Your task to perform on an android device: Open privacy settings Image 0: 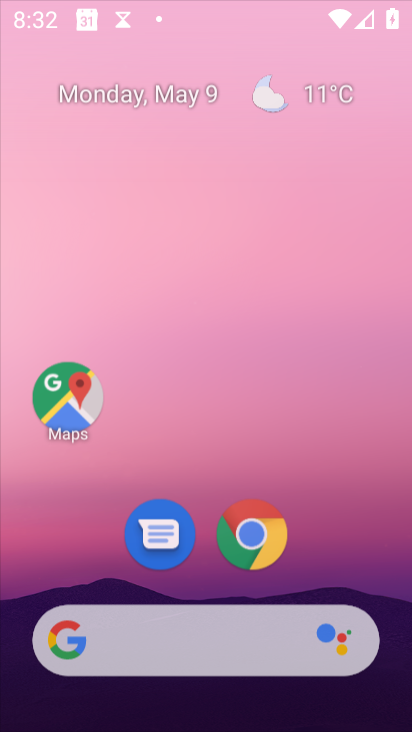
Step 0: click (226, 159)
Your task to perform on an android device: Open privacy settings Image 1: 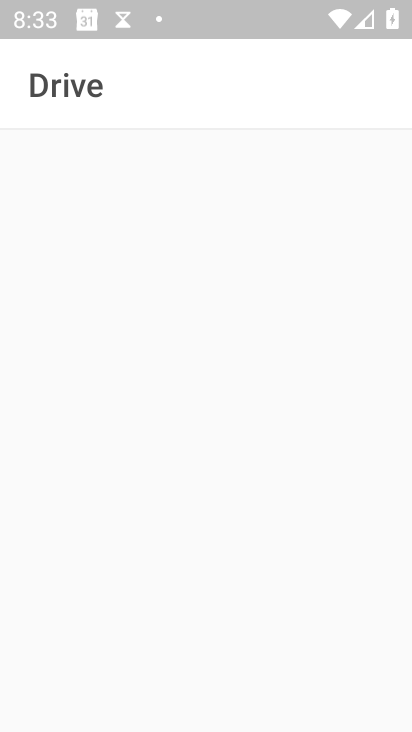
Step 1: press home button
Your task to perform on an android device: Open privacy settings Image 2: 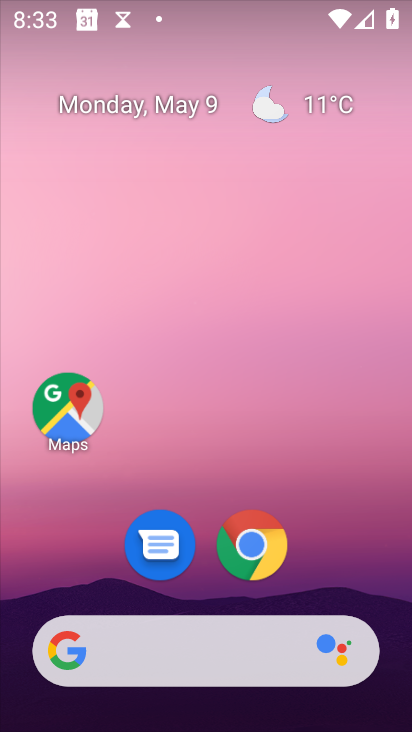
Step 2: drag from (190, 703) to (198, 201)
Your task to perform on an android device: Open privacy settings Image 3: 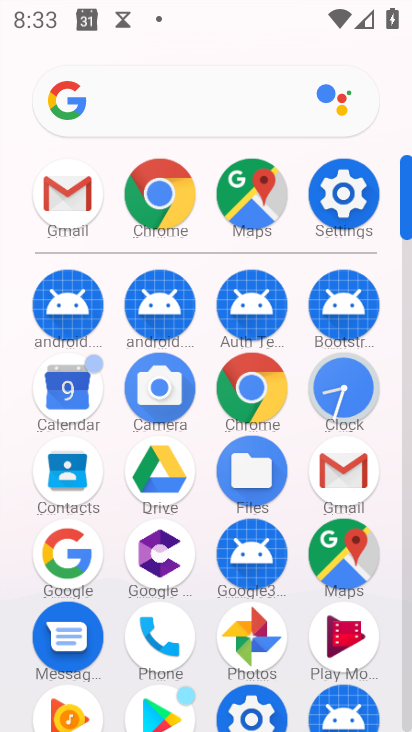
Step 3: click (349, 188)
Your task to perform on an android device: Open privacy settings Image 4: 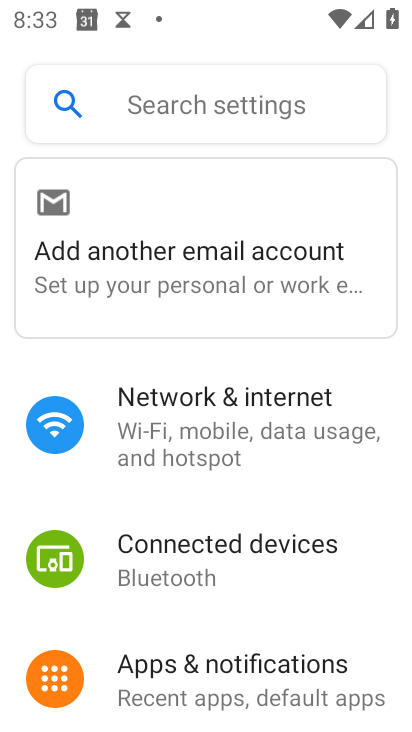
Step 4: drag from (220, 637) to (228, 283)
Your task to perform on an android device: Open privacy settings Image 5: 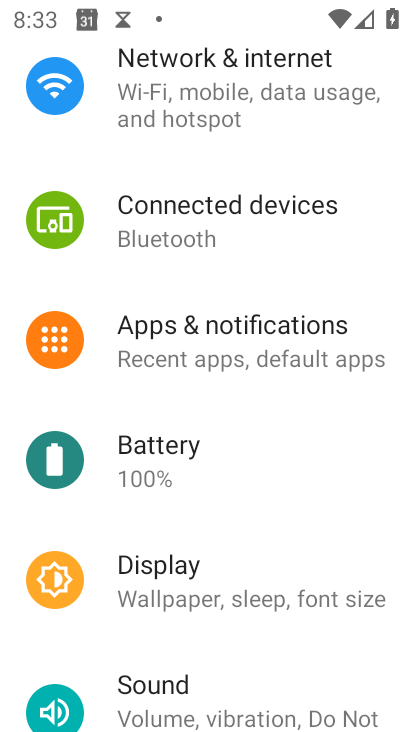
Step 5: drag from (224, 633) to (203, 264)
Your task to perform on an android device: Open privacy settings Image 6: 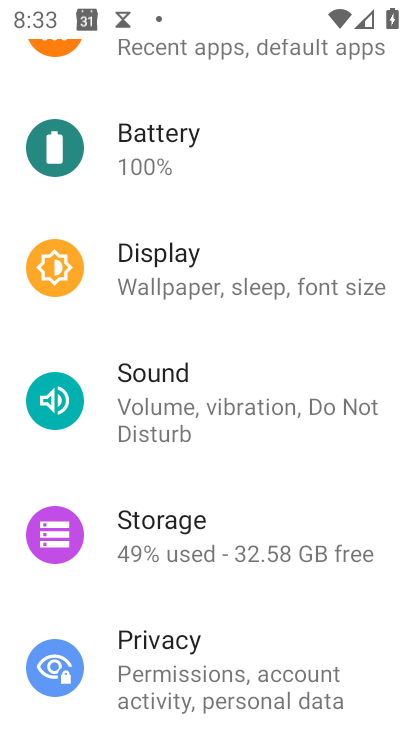
Step 6: click (188, 646)
Your task to perform on an android device: Open privacy settings Image 7: 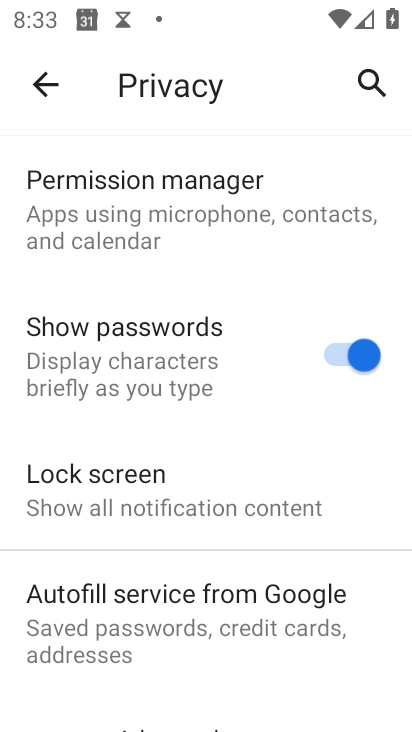
Step 7: task complete